Your task to perform on an android device: What's the weather? Image 0: 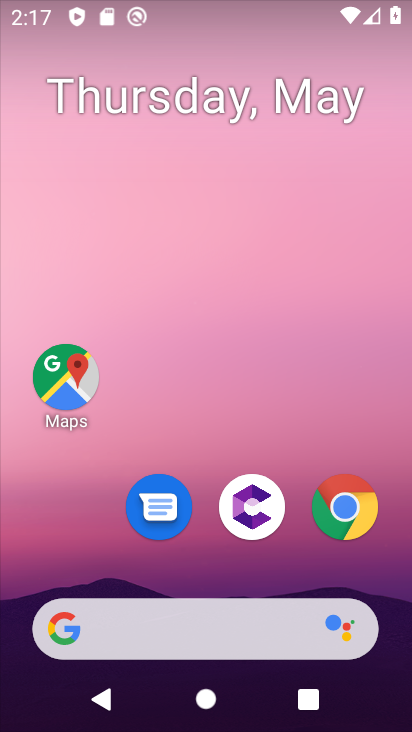
Step 0: press home button
Your task to perform on an android device: What's the weather? Image 1: 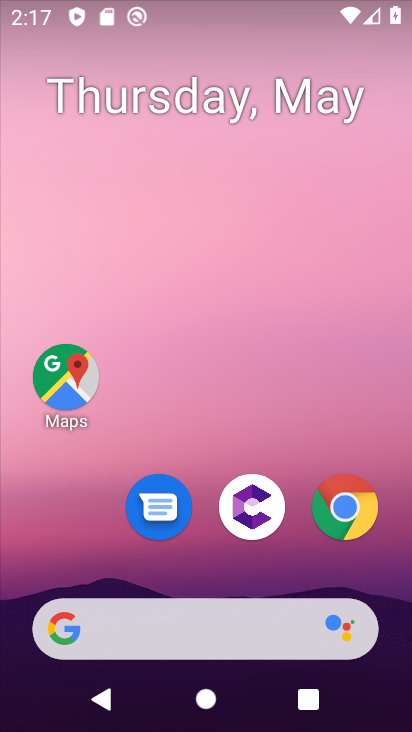
Step 1: click (70, 626)
Your task to perform on an android device: What's the weather? Image 2: 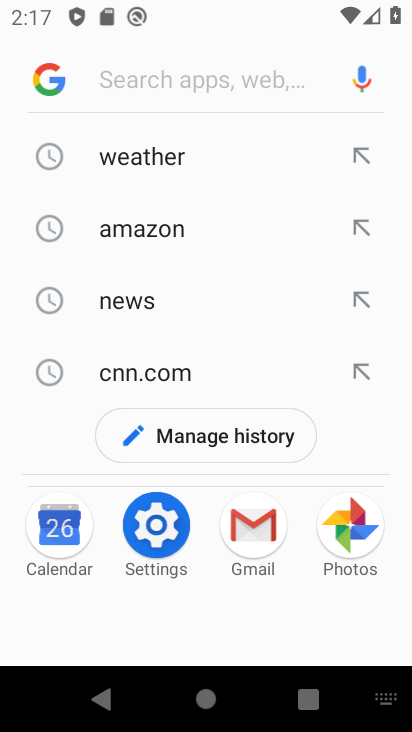
Step 2: click (151, 154)
Your task to perform on an android device: What's the weather? Image 3: 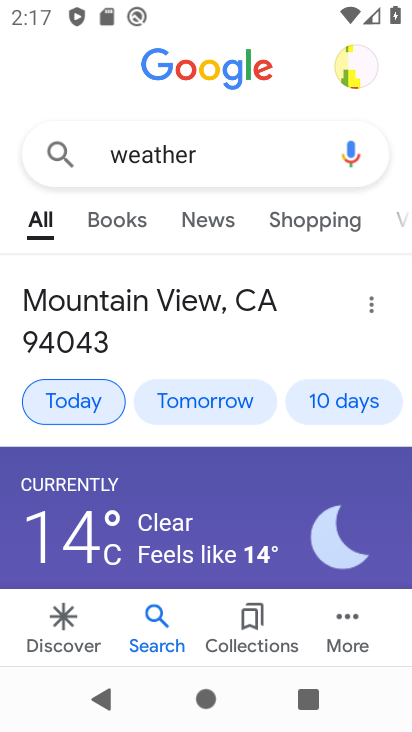
Step 3: task complete